Your task to perform on an android device: turn off smart reply in the gmail app Image 0: 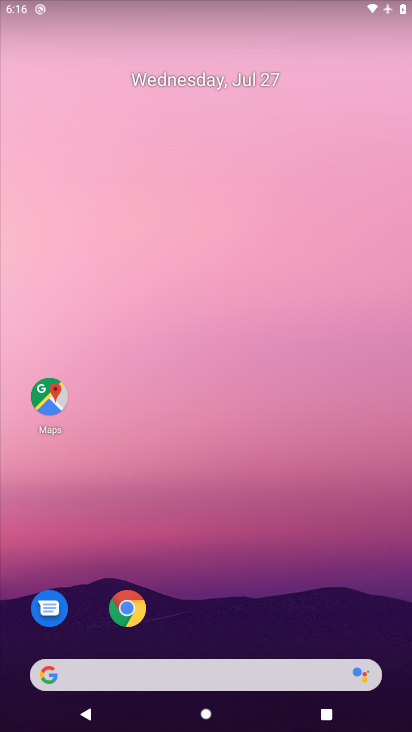
Step 0: press home button
Your task to perform on an android device: turn off smart reply in the gmail app Image 1: 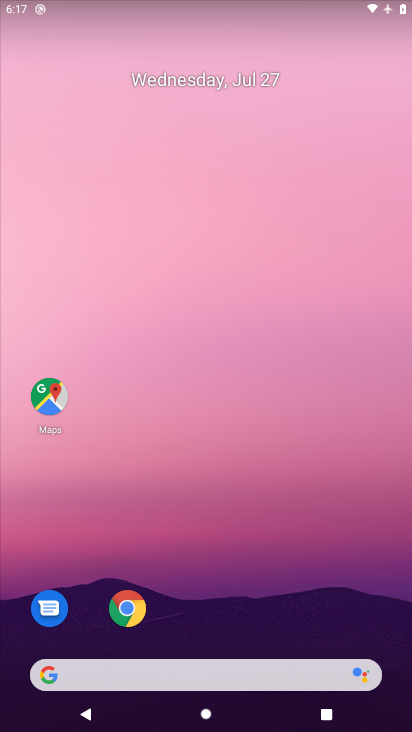
Step 1: drag from (233, 630) to (286, 53)
Your task to perform on an android device: turn off smart reply in the gmail app Image 2: 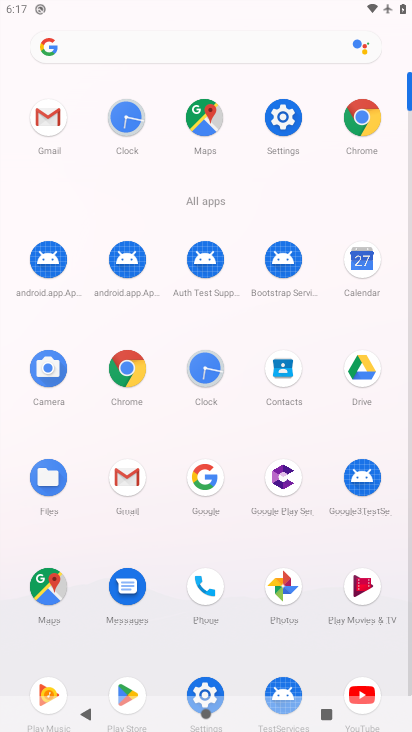
Step 2: click (44, 108)
Your task to perform on an android device: turn off smart reply in the gmail app Image 3: 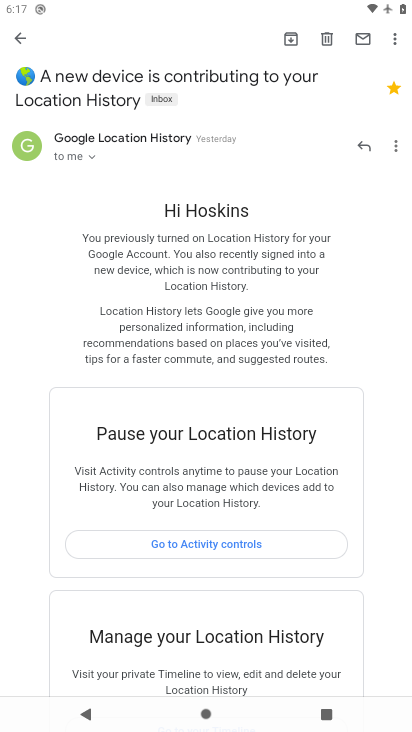
Step 3: click (17, 33)
Your task to perform on an android device: turn off smart reply in the gmail app Image 4: 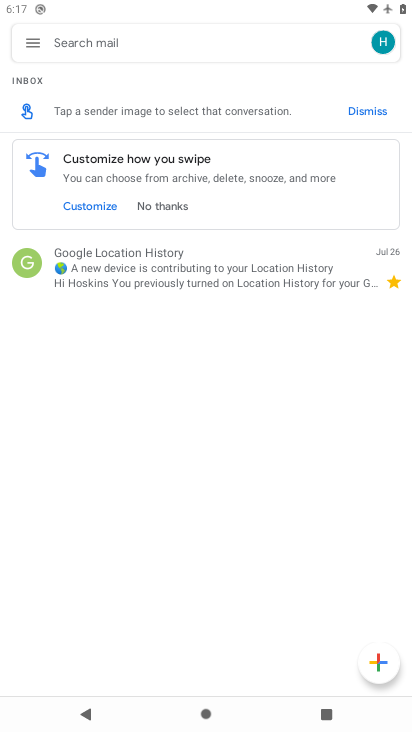
Step 4: click (31, 39)
Your task to perform on an android device: turn off smart reply in the gmail app Image 5: 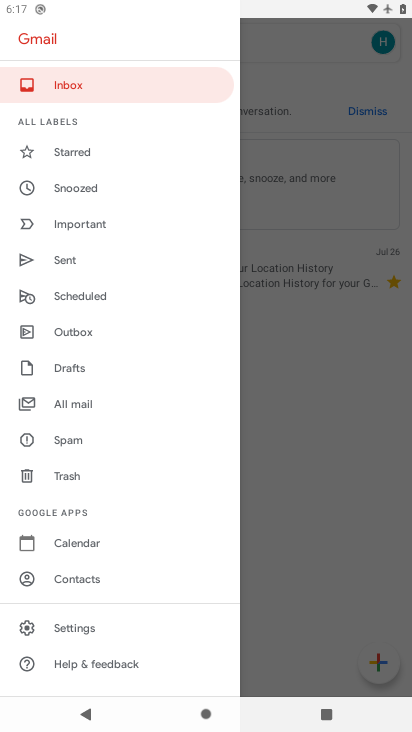
Step 5: click (71, 631)
Your task to perform on an android device: turn off smart reply in the gmail app Image 6: 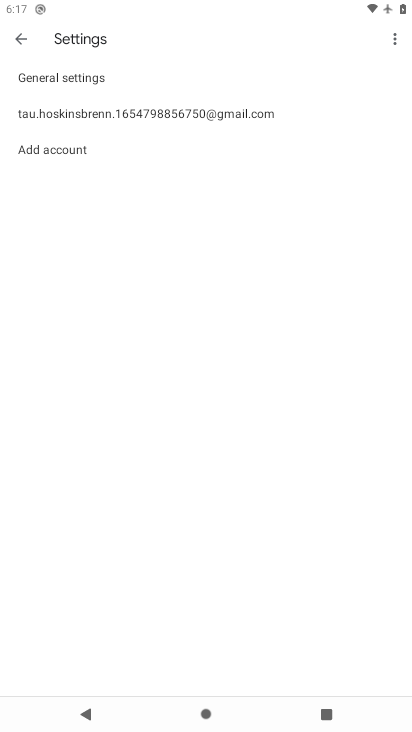
Step 6: click (128, 116)
Your task to perform on an android device: turn off smart reply in the gmail app Image 7: 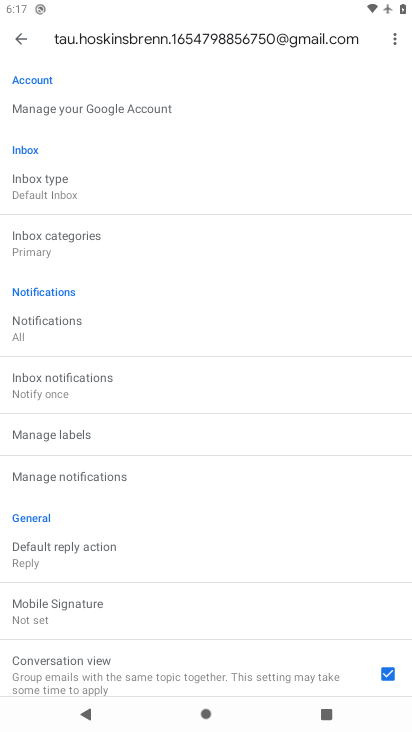
Step 7: drag from (226, 622) to (236, 103)
Your task to perform on an android device: turn off smart reply in the gmail app Image 8: 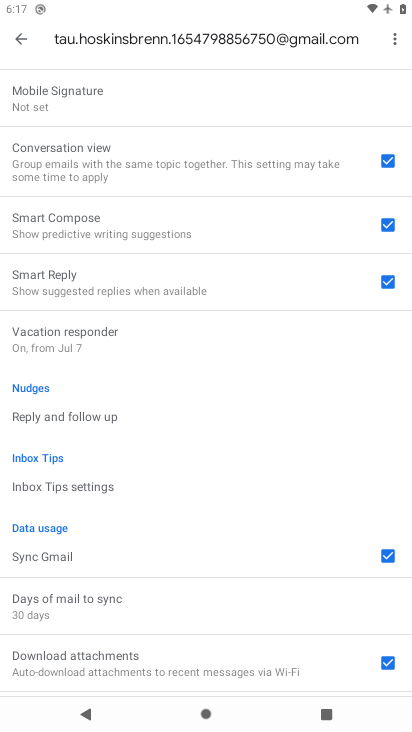
Step 8: click (395, 281)
Your task to perform on an android device: turn off smart reply in the gmail app Image 9: 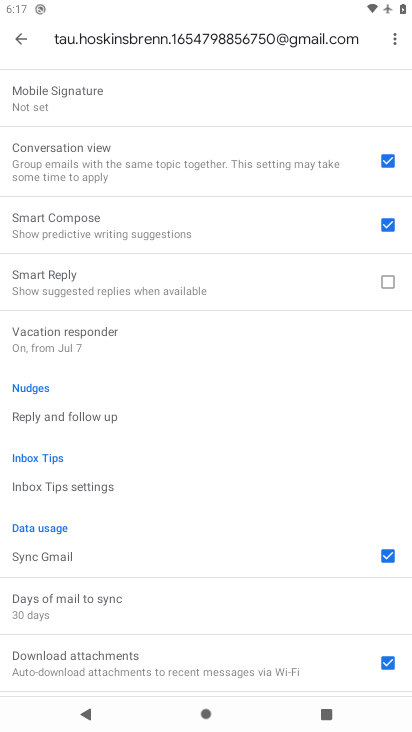
Step 9: task complete